Your task to perform on an android device: change notifications settings Image 0: 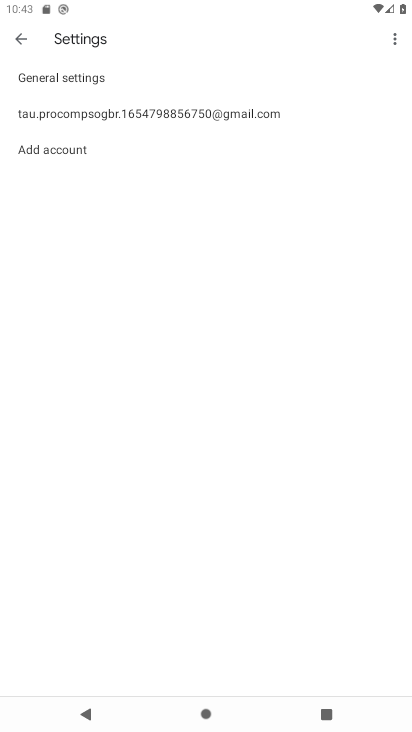
Step 0: press home button
Your task to perform on an android device: change notifications settings Image 1: 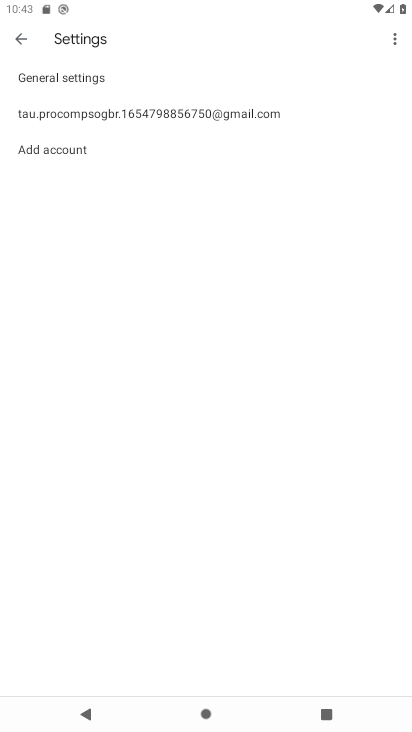
Step 1: press home button
Your task to perform on an android device: change notifications settings Image 2: 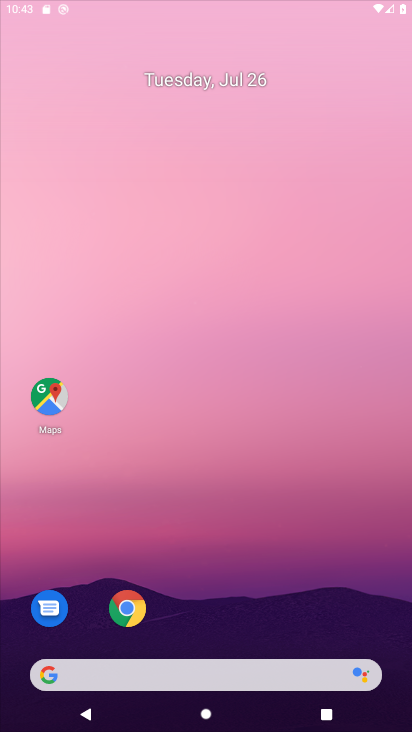
Step 2: press home button
Your task to perform on an android device: change notifications settings Image 3: 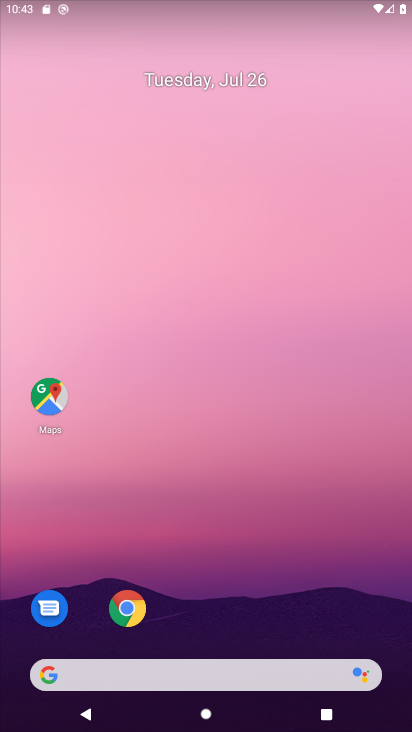
Step 3: drag from (247, 610) to (290, 15)
Your task to perform on an android device: change notifications settings Image 4: 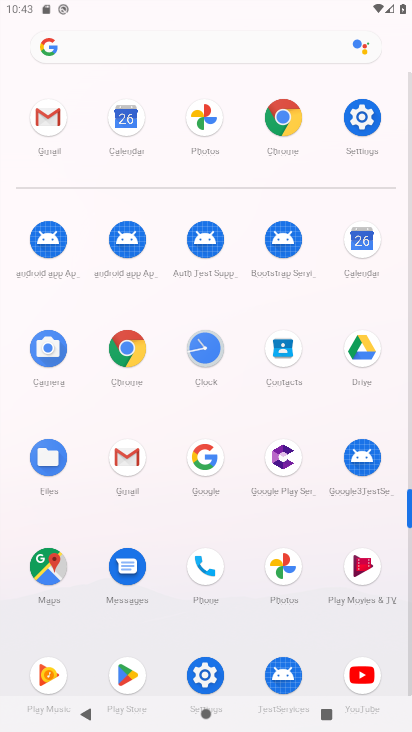
Step 4: click (353, 115)
Your task to perform on an android device: change notifications settings Image 5: 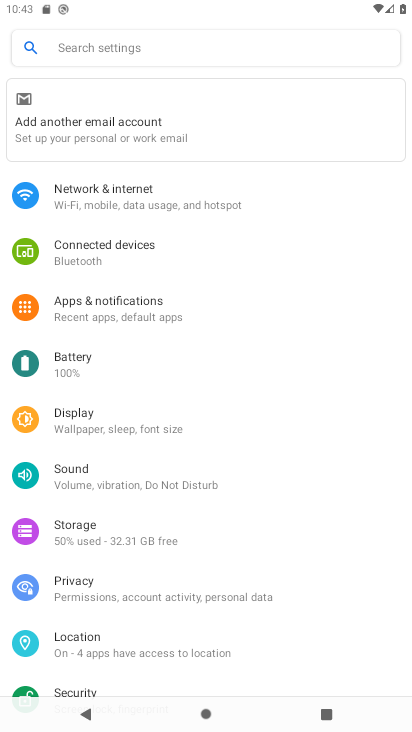
Step 5: click (103, 305)
Your task to perform on an android device: change notifications settings Image 6: 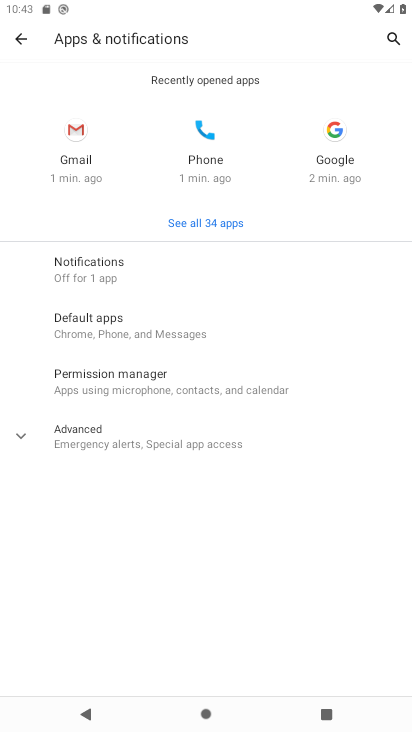
Step 6: click (103, 275)
Your task to perform on an android device: change notifications settings Image 7: 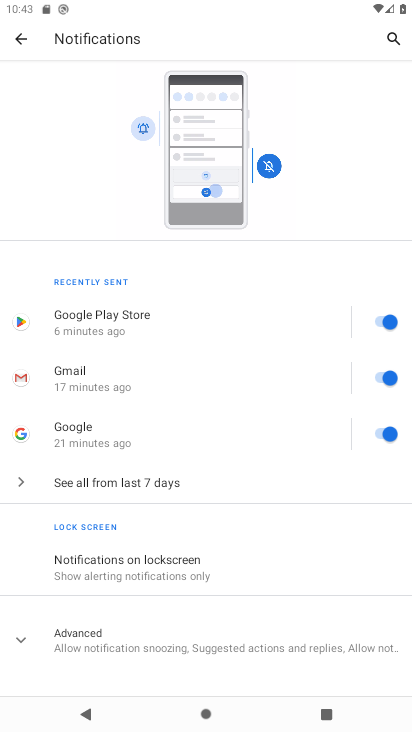
Step 7: drag from (221, 604) to (313, 250)
Your task to perform on an android device: change notifications settings Image 8: 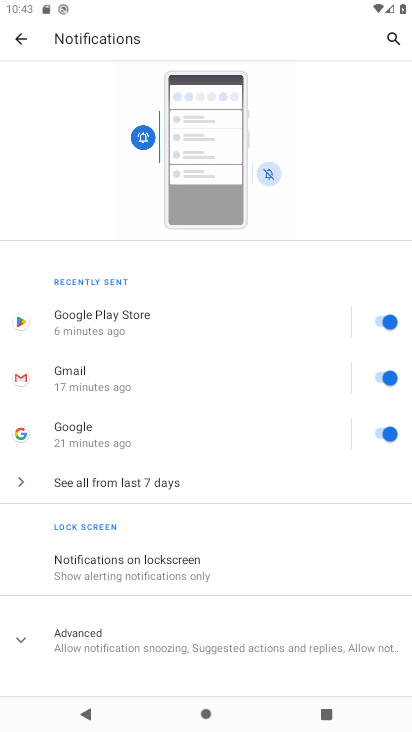
Step 8: click (165, 638)
Your task to perform on an android device: change notifications settings Image 9: 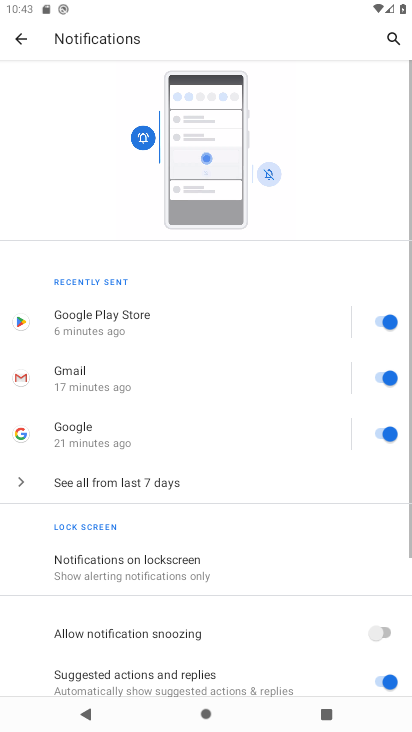
Step 9: task complete